Your task to perform on an android device: What's the weather going to be this weekend? Image 0: 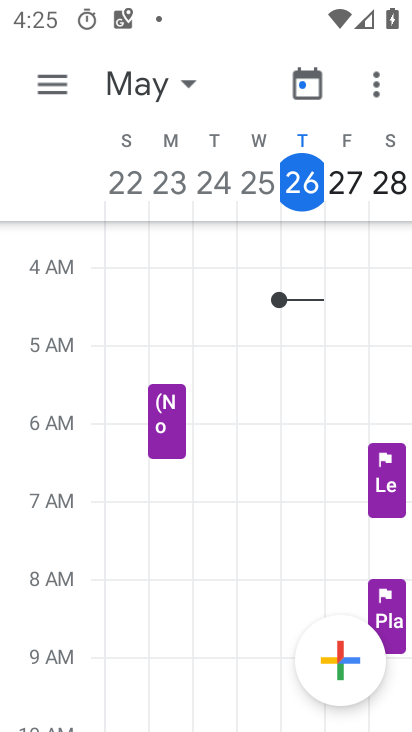
Step 0: press home button
Your task to perform on an android device: What's the weather going to be this weekend? Image 1: 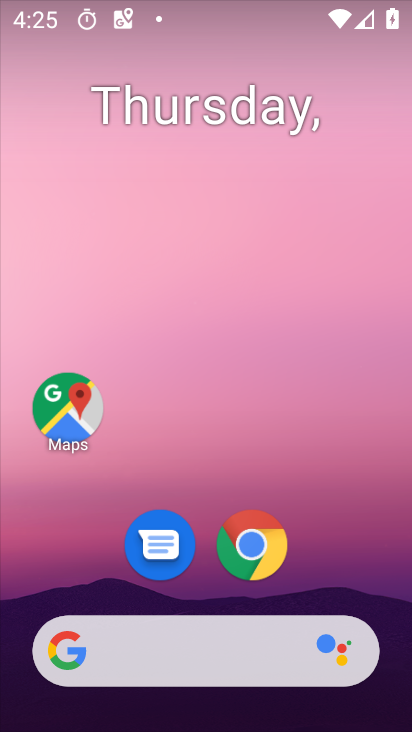
Step 1: drag from (202, 729) to (206, 121)
Your task to perform on an android device: What's the weather going to be this weekend? Image 2: 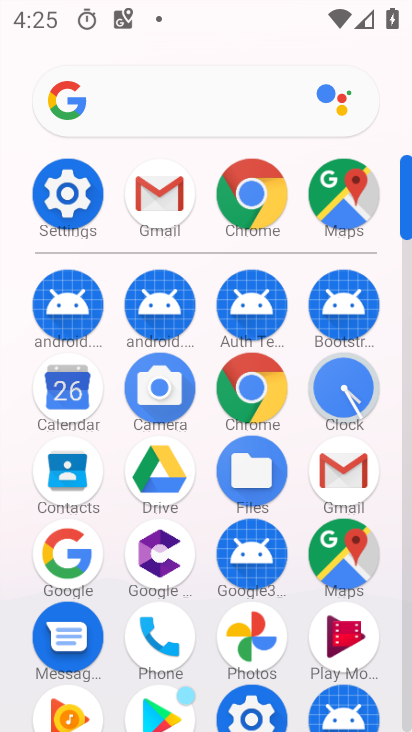
Step 2: click (66, 550)
Your task to perform on an android device: What's the weather going to be this weekend? Image 3: 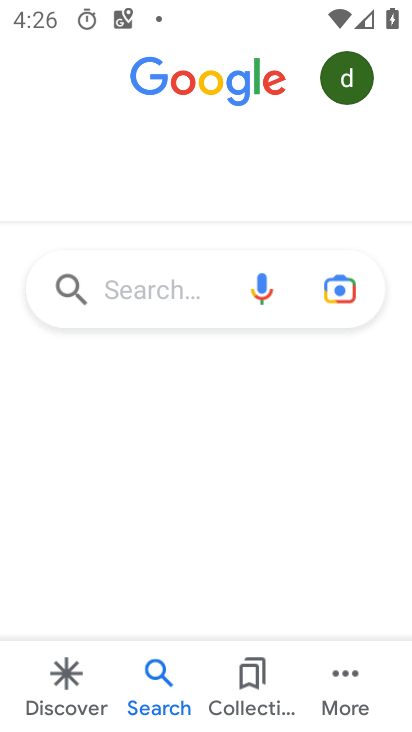
Step 3: click (187, 287)
Your task to perform on an android device: What's the weather going to be this weekend? Image 4: 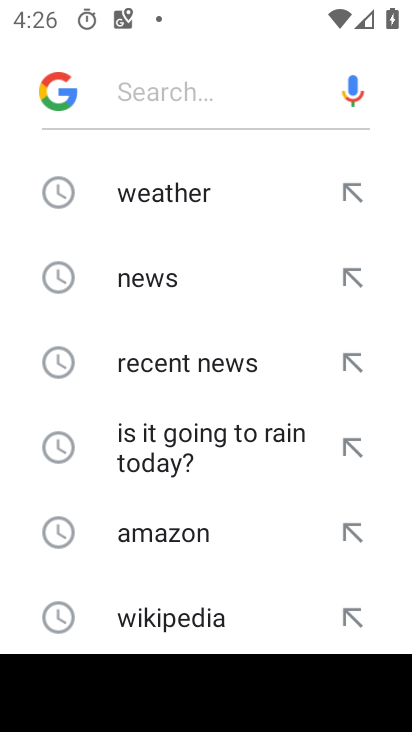
Step 4: click (144, 198)
Your task to perform on an android device: What's the weather going to be this weekend? Image 5: 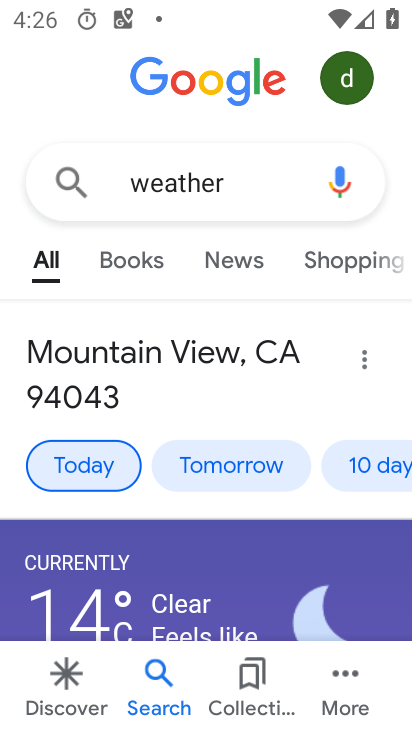
Step 5: click (364, 464)
Your task to perform on an android device: What's the weather going to be this weekend? Image 6: 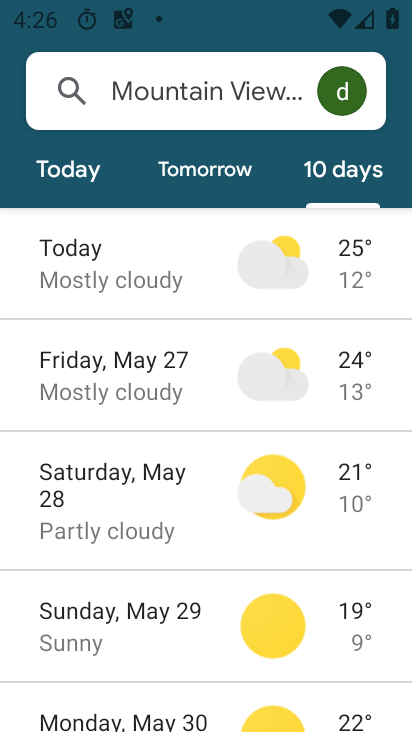
Step 6: click (100, 477)
Your task to perform on an android device: What's the weather going to be this weekend? Image 7: 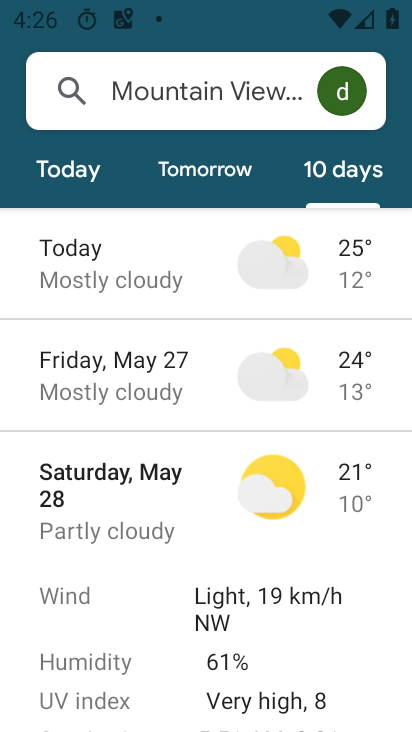
Step 7: task complete